Your task to perform on an android device: choose inbox layout in the gmail app Image 0: 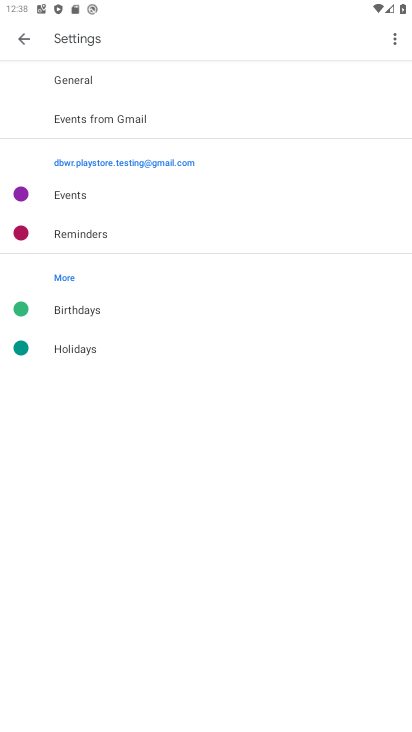
Step 0: press home button
Your task to perform on an android device: choose inbox layout in the gmail app Image 1: 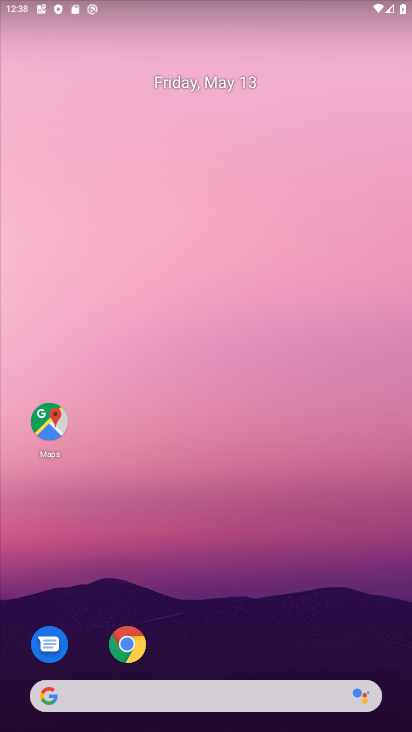
Step 1: drag from (225, 581) to (256, 11)
Your task to perform on an android device: choose inbox layout in the gmail app Image 2: 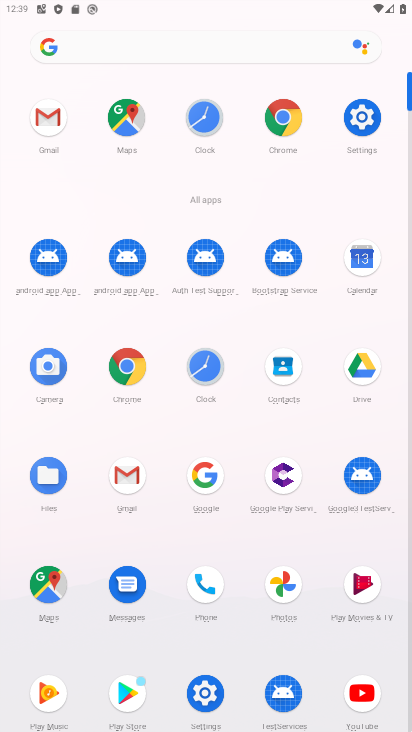
Step 2: click (47, 126)
Your task to perform on an android device: choose inbox layout in the gmail app Image 3: 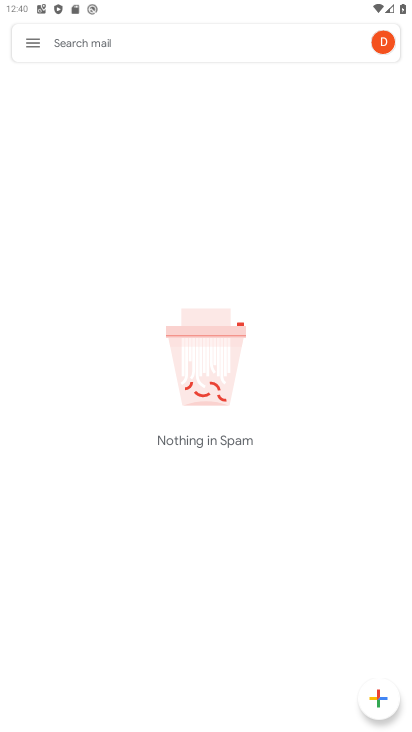
Step 3: click (32, 44)
Your task to perform on an android device: choose inbox layout in the gmail app Image 4: 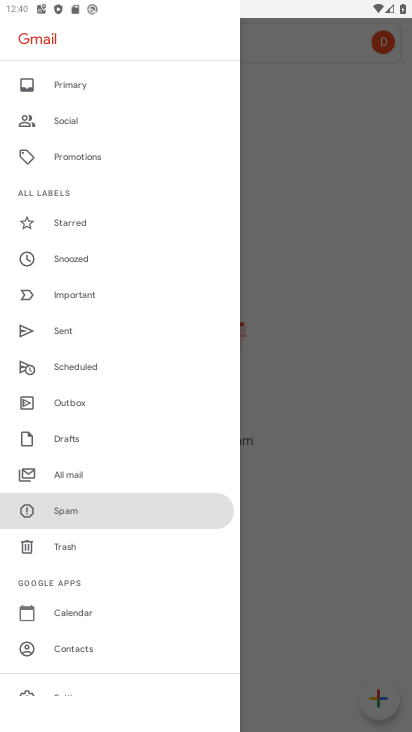
Step 4: drag from (133, 618) to (119, 408)
Your task to perform on an android device: choose inbox layout in the gmail app Image 5: 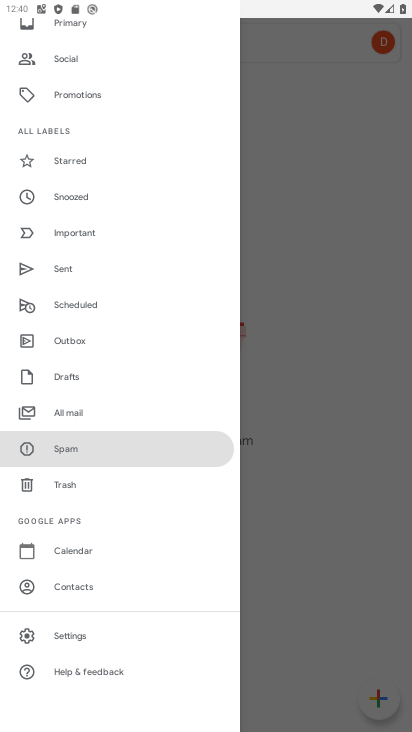
Step 5: click (88, 638)
Your task to perform on an android device: choose inbox layout in the gmail app Image 6: 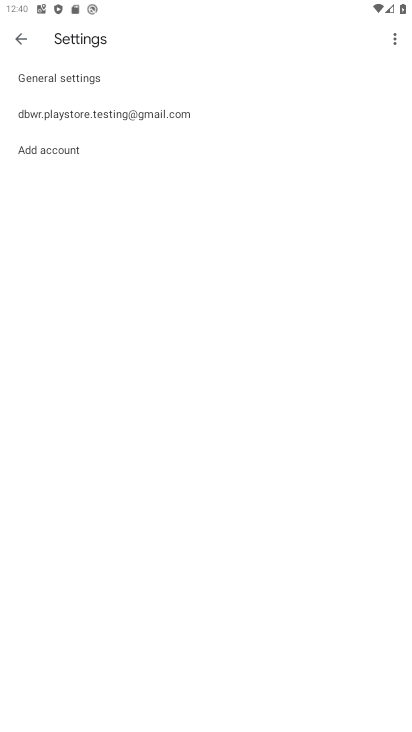
Step 6: click (132, 117)
Your task to perform on an android device: choose inbox layout in the gmail app Image 7: 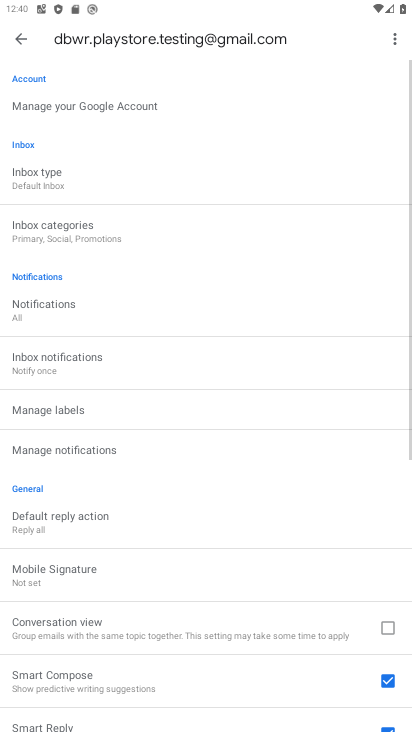
Step 7: click (52, 179)
Your task to perform on an android device: choose inbox layout in the gmail app Image 8: 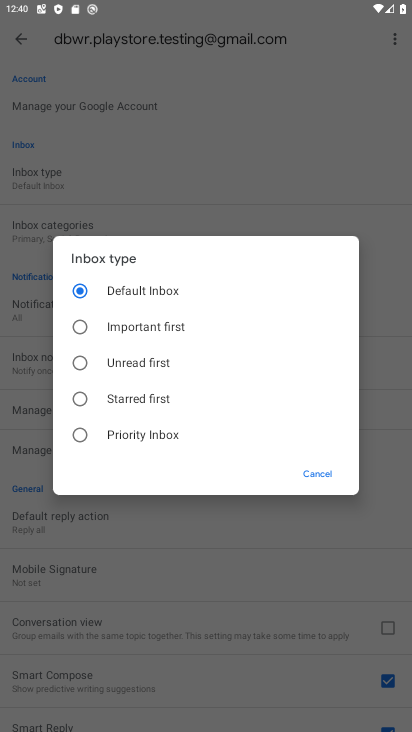
Step 8: click (76, 432)
Your task to perform on an android device: choose inbox layout in the gmail app Image 9: 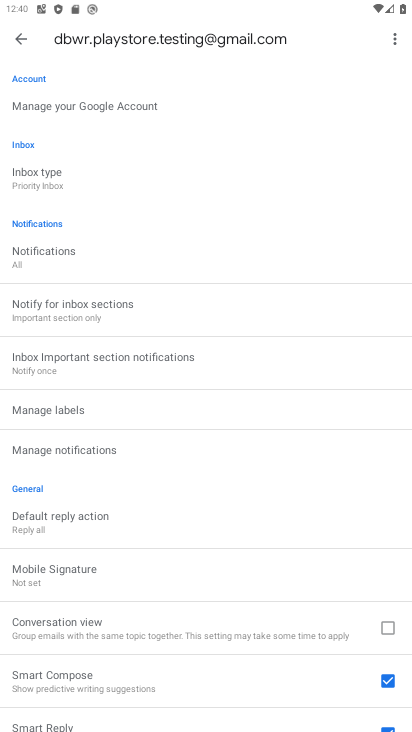
Step 9: task complete